Your task to perform on an android device: turn on airplane mode Image 0: 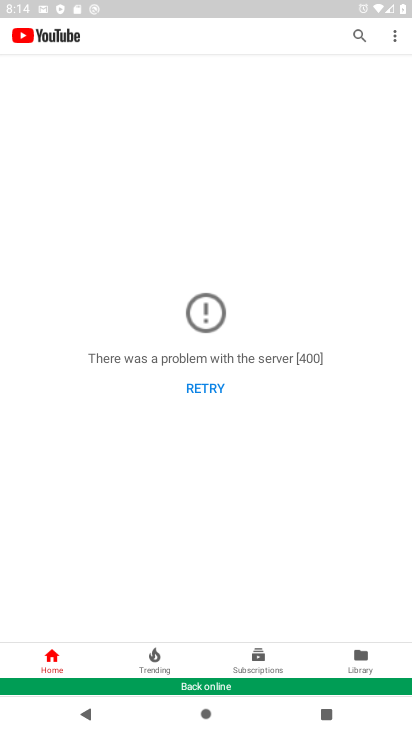
Step 0: press home button
Your task to perform on an android device: turn on airplane mode Image 1: 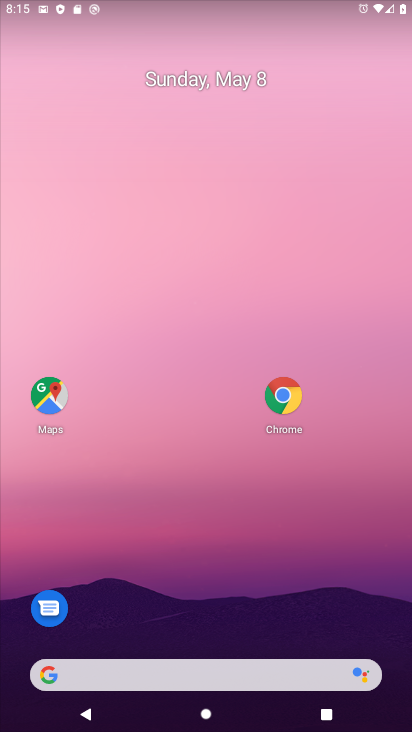
Step 1: drag from (166, 677) to (260, 278)
Your task to perform on an android device: turn on airplane mode Image 2: 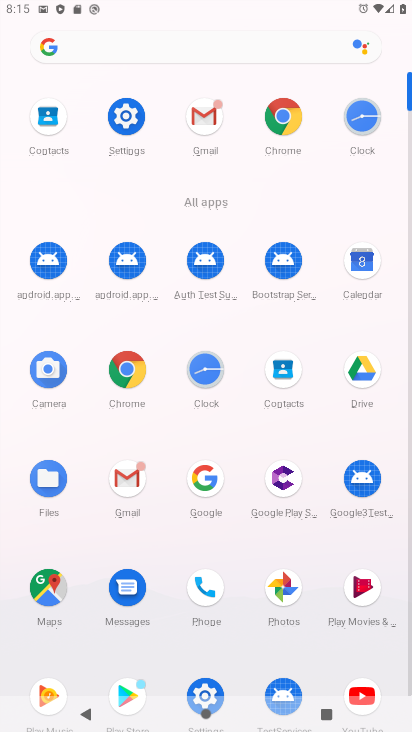
Step 2: click (129, 115)
Your task to perform on an android device: turn on airplane mode Image 3: 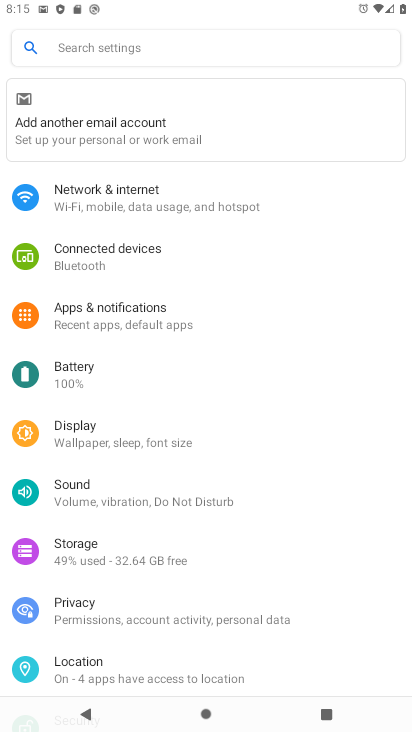
Step 3: click (135, 196)
Your task to perform on an android device: turn on airplane mode Image 4: 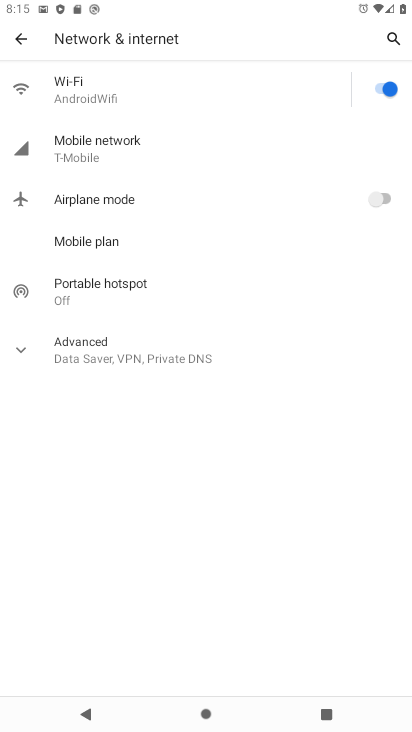
Step 4: click (389, 197)
Your task to perform on an android device: turn on airplane mode Image 5: 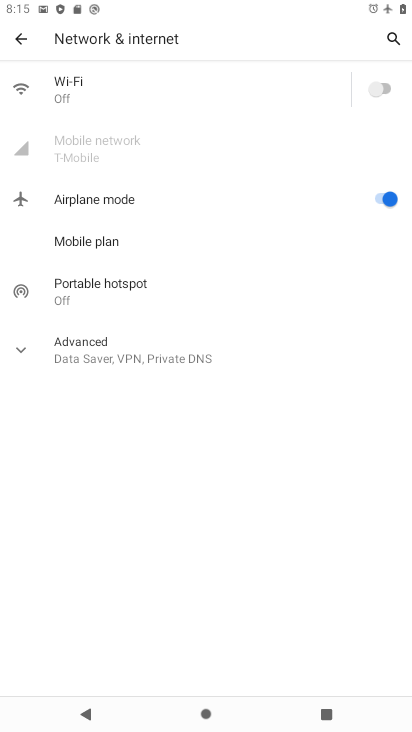
Step 5: task complete